Your task to perform on an android device: Go to Android settings Image 0: 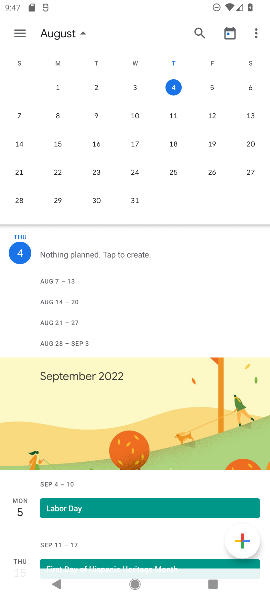
Step 0: press home button
Your task to perform on an android device: Go to Android settings Image 1: 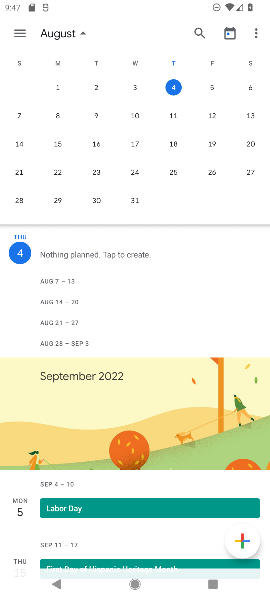
Step 1: press home button
Your task to perform on an android device: Go to Android settings Image 2: 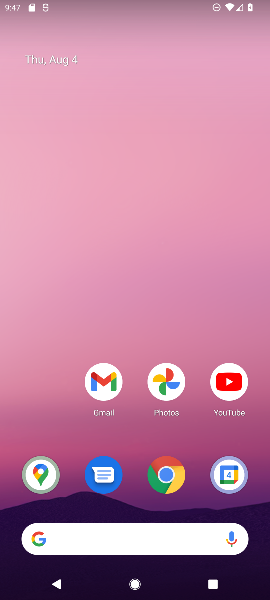
Step 2: drag from (123, 491) to (144, 222)
Your task to perform on an android device: Go to Android settings Image 3: 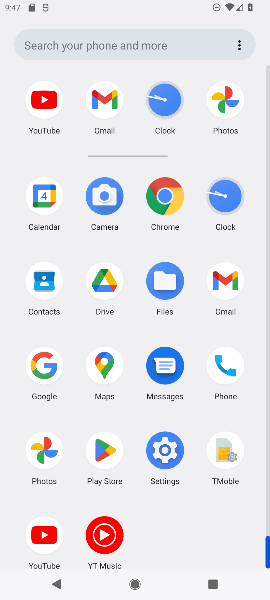
Step 3: drag from (133, 482) to (131, 320)
Your task to perform on an android device: Go to Android settings Image 4: 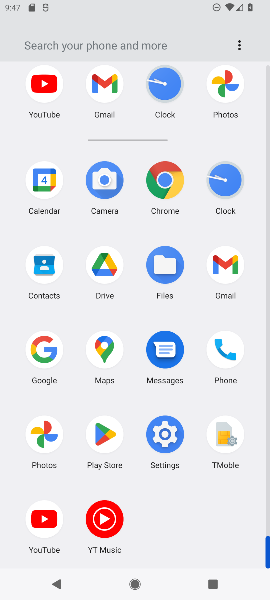
Step 4: click (157, 436)
Your task to perform on an android device: Go to Android settings Image 5: 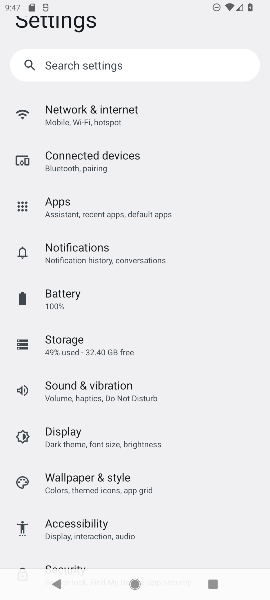
Step 5: drag from (118, 512) to (123, 236)
Your task to perform on an android device: Go to Android settings Image 6: 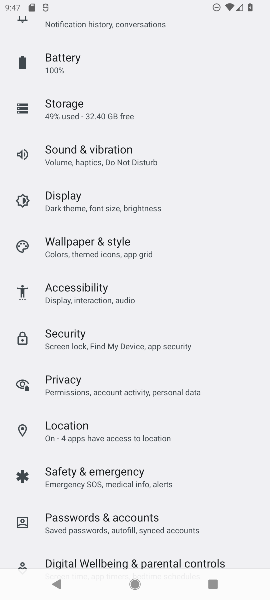
Step 6: drag from (162, 383) to (155, 260)
Your task to perform on an android device: Go to Android settings Image 7: 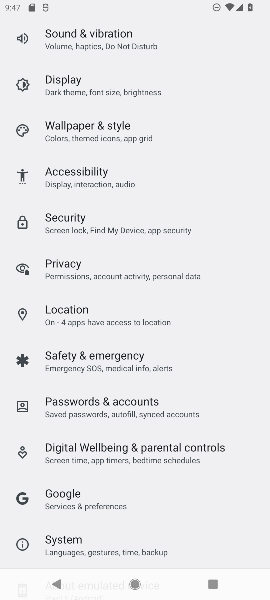
Step 7: drag from (145, 501) to (147, 161)
Your task to perform on an android device: Go to Android settings Image 8: 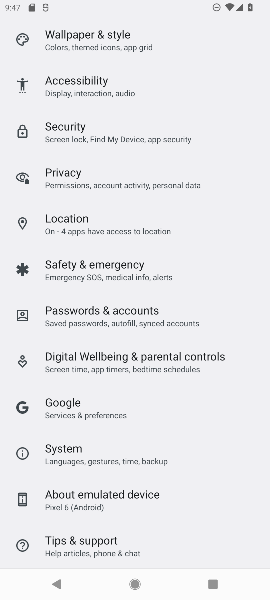
Step 8: click (104, 500)
Your task to perform on an android device: Go to Android settings Image 9: 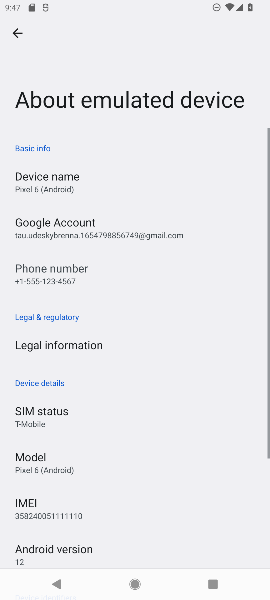
Step 9: drag from (118, 507) to (120, 103)
Your task to perform on an android device: Go to Android settings Image 10: 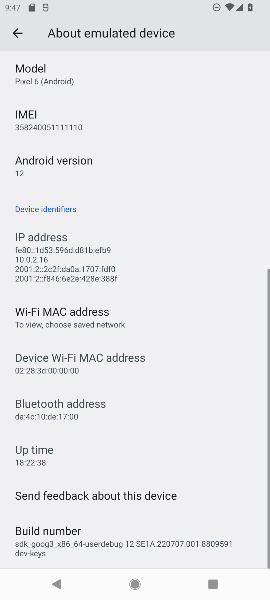
Step 10: drag from (164, 556) to (88, 63)
Your task to perform on an android device: Go to Android settings Image 11: 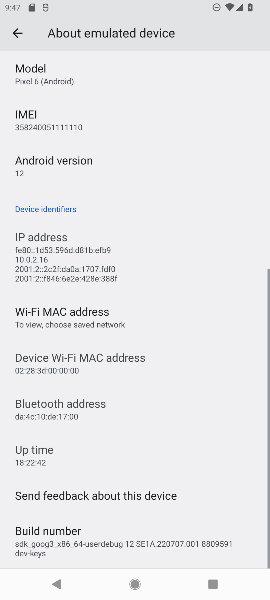
Step 11: drag from (143, 516) to (128, 268)
Your task to perform on an android device: Go to Android settings Image 12: 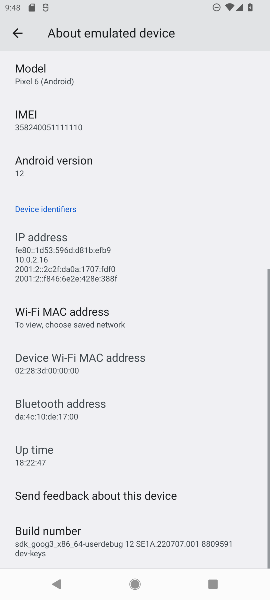
Step 12: click (92, 168)
Your task to perform on an android device: Go to Android settings Image 13: 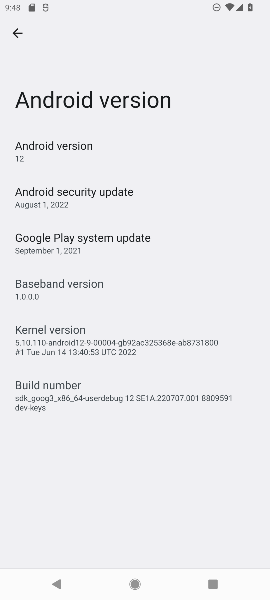
Step 13: click (49, 151)
Your task to perform on an android device: Go to Android settings Image 14: 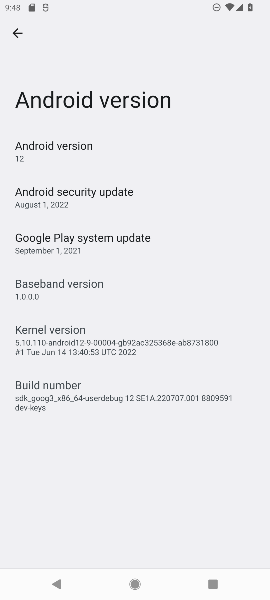
Step 14: task complete